Your task to perform on an android device: move a message to another label in the gmail app Image 0: 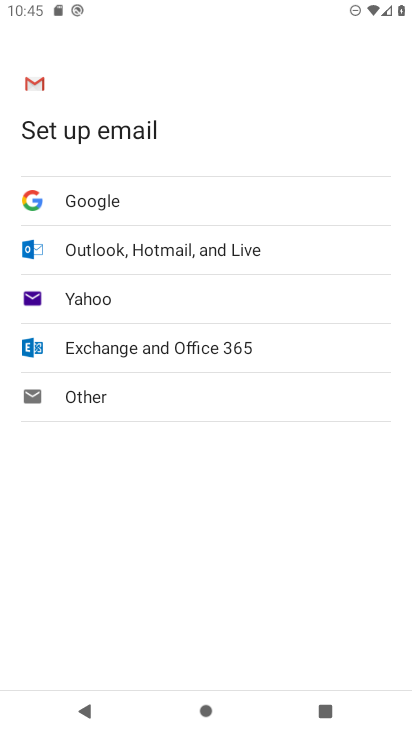
Step 0: press home button
Your task to perform on an android device: move a message to another label in the gmail app Image 1: 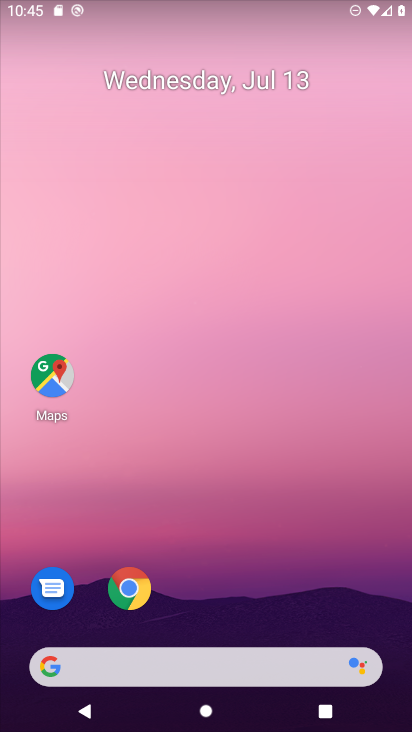
Step 1: drag from (208, 569) to (212, 177)
Your task to perform on an android device: move a message to another label in the gmail app Image 2: 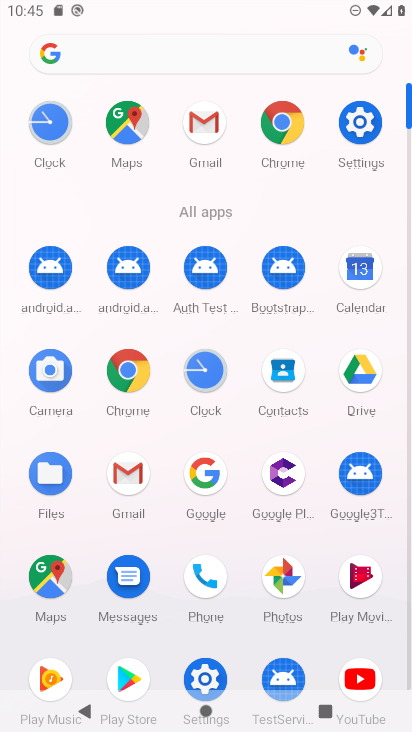
Step 2: click (132, 484)
Your task to perform on an android device: move a message to another label in the gmail app Image 3: 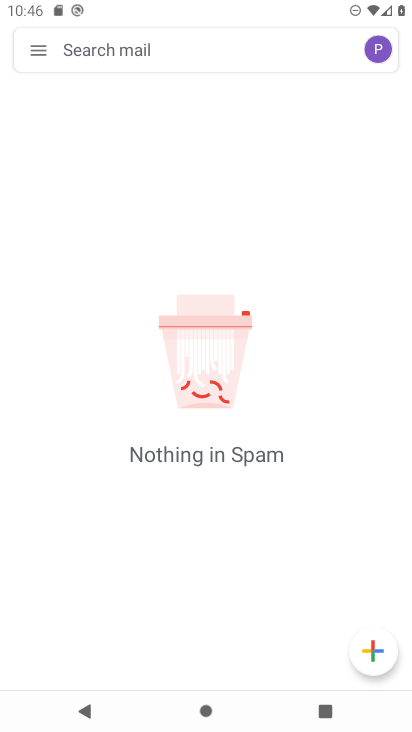
Step 3: click (30, 50)
Your task to perform on an android device: move a message to another label in the gmail app Image 4: 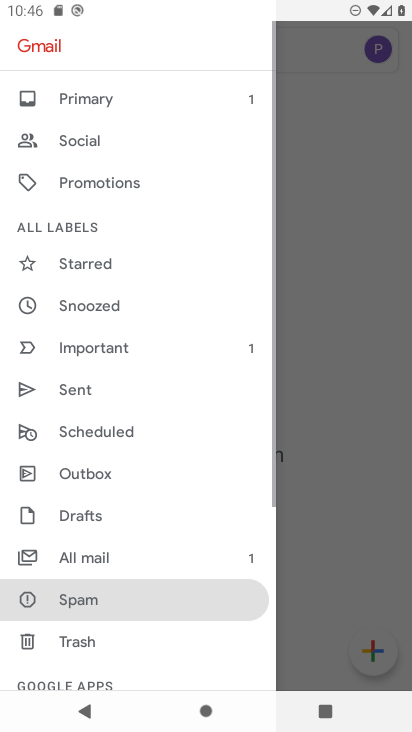
Step 4: drag from (31, 42) to (100, 395)
Your task to perform on an android device: move a message to another label in the gmail app Image 5: 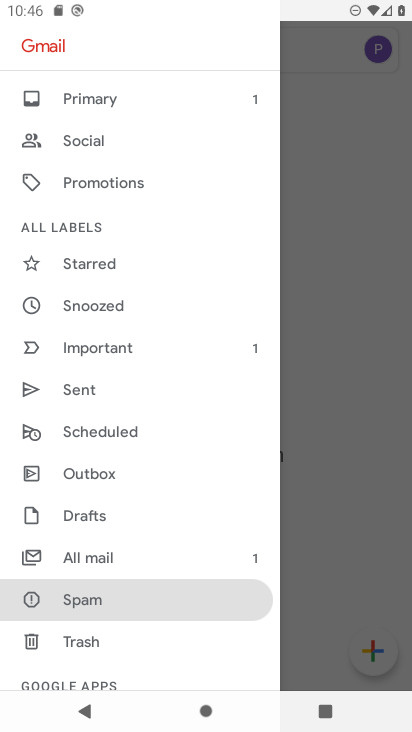
Step 5: click (118, 105)
Your task to perform on an android device: move a message to another label in the gmail app Image 6: 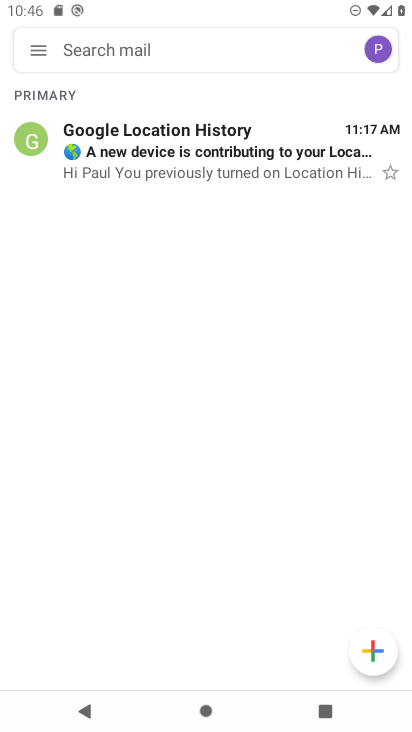
Step 6: click (123, 95)
Your task to perform on an android device: move a message to another label in the gmail app Image 7: 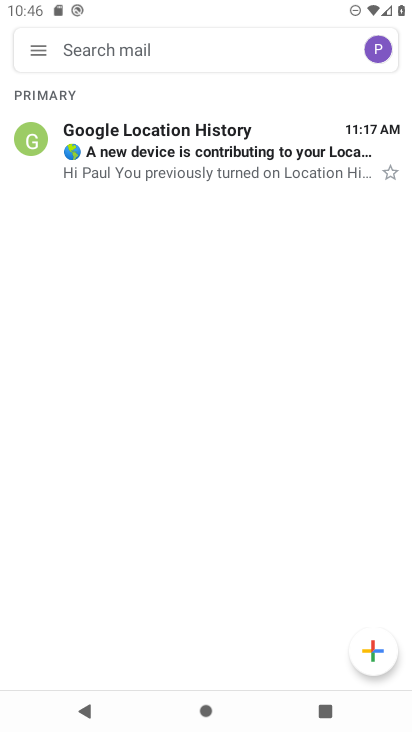
Step 7: click (23, 130)
Your task to perform on an android device: move a message to another label in the gmail app Image 8: 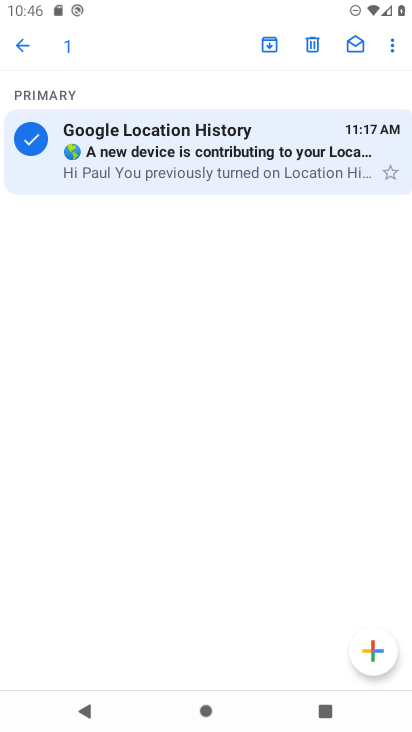
Step 8: click (394, 38)
Your task to perform on an android device: move a message to another label in the gmail app Image 9: 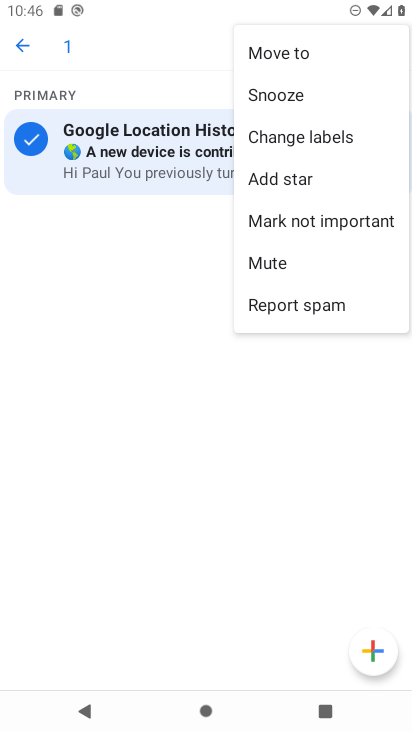
Step 9: click (312, 48)
Your task to perform on an android device: move a message to another label in the gmail app Image 10: 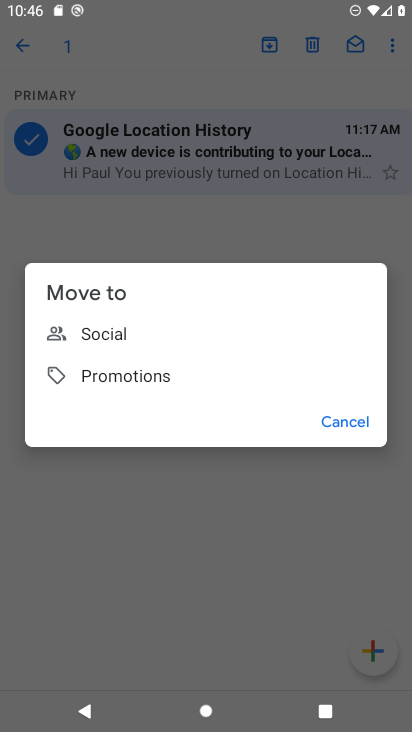
Step 10: click (136, 378)
Your task to perform on an android device: move a message to another label in the gmail app Image 11: 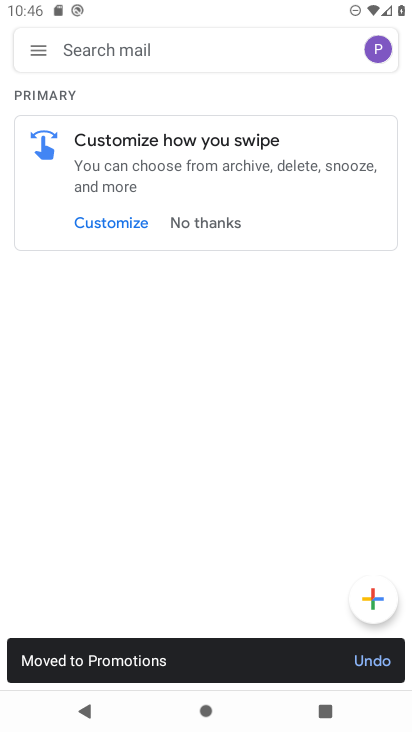
Step 11: task complete